Your task to perform on an android device: Go to Android settings Image 0: 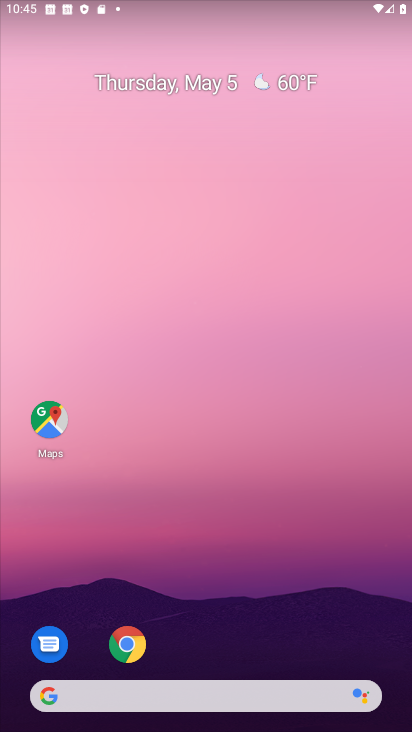
Step 0: drag from (205, 655) to (265, 156)
Your task to perform on an android device: Go to Android settings Image 1: 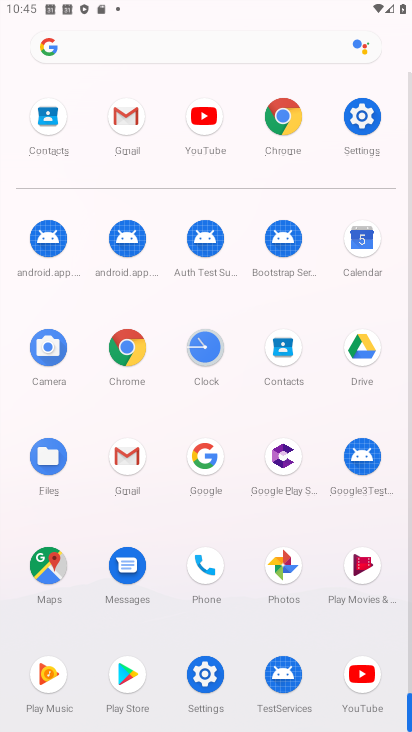
Step 1: click (199, 671)
Your task to perform on an android device: Go to Android settings Image 2: 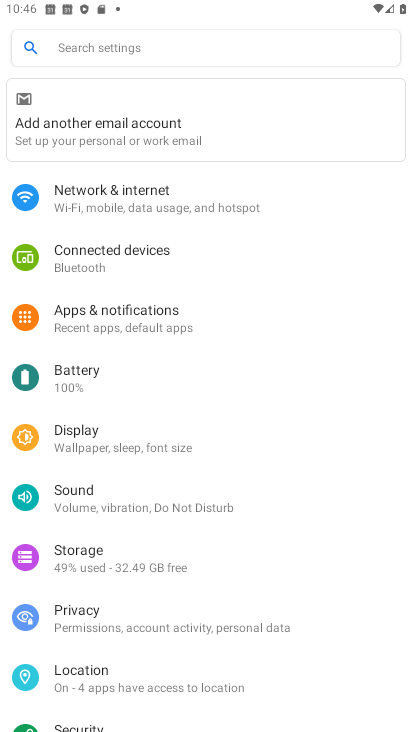
Step 2: drag from (175, 580) to (243, 179)
Your task to perform on an android device: Go to Android settings Image 3: 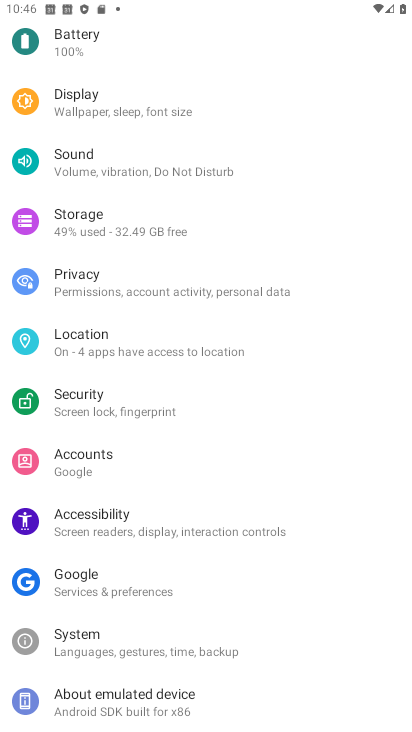
Step 3: drag from (172, 195) to (322, 66)
Your task to perform on an android device: Go to Android settings Image 4: 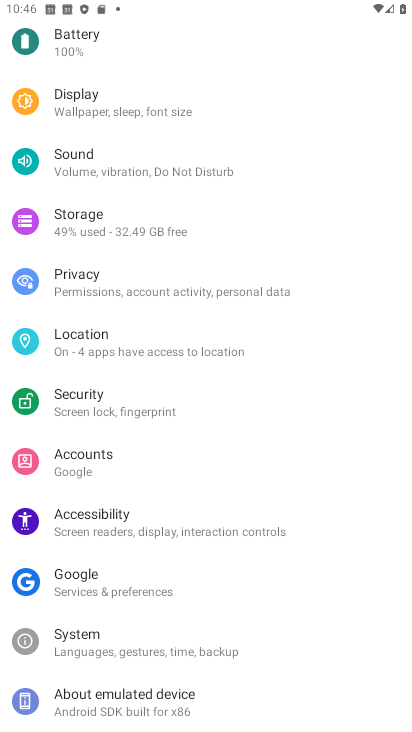
Step 4: click (162, 697)
Your task to perform on an android device: Go to Android settings Image 5: 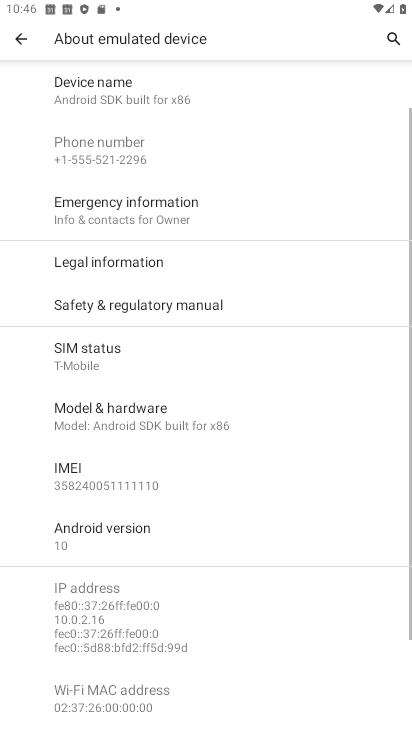
Step 5: click (128, 549)
Your task to perform on an android device: Go to Android settings Image 6: 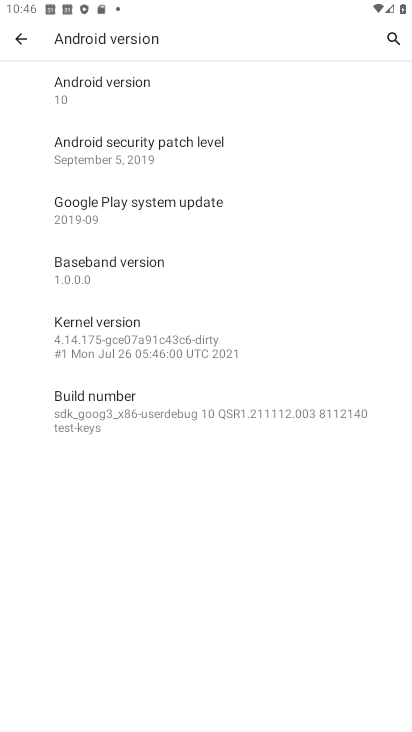
Step 6: click (341, 142)
Your task to perform on an android device: Go to Android settings Image 7: 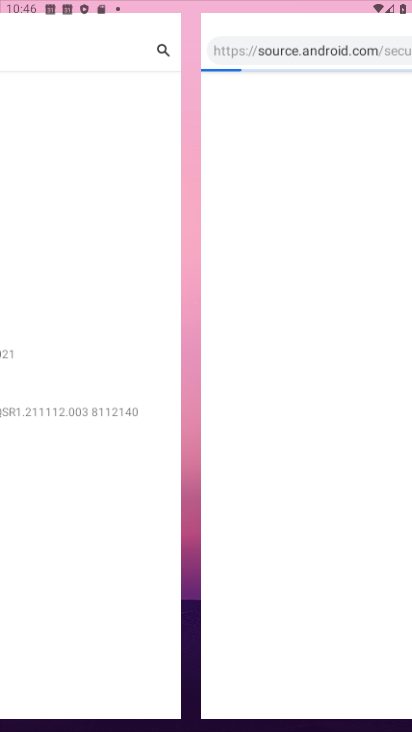
Step 7: task complete